Your task to perform on an android device: open chrome and create a bookmark for the current page Image 0: 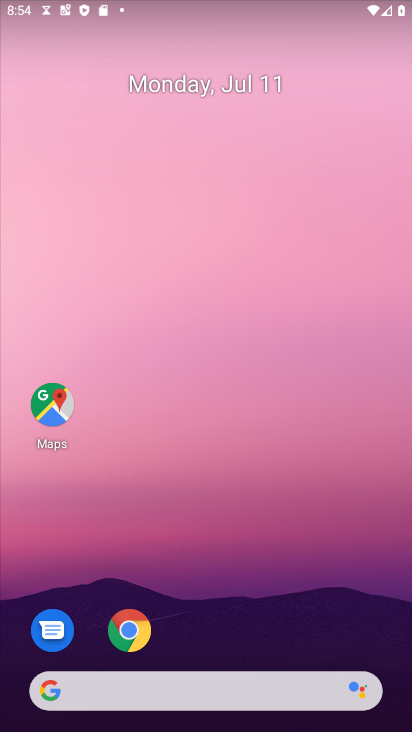
Step 0: click (131, 628)
Your task to perform on an android device: open chrome and create a bookmark for the current page Image 1: 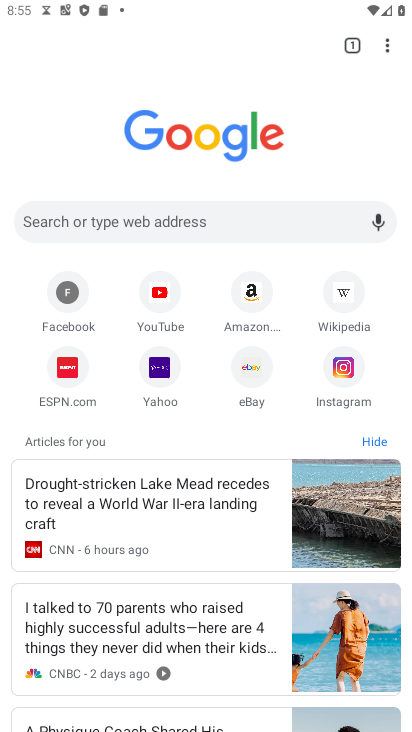
Step 1: click (385, 42)
Your task to perform on an android device: open chrome and create a bookmark for the current page Image 2: 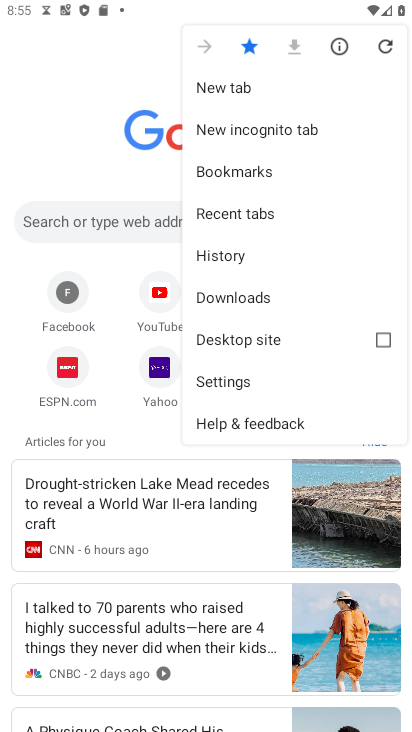
Step 2: task complete